Your task to perform on an android device: turn on airplane mode Image 0: 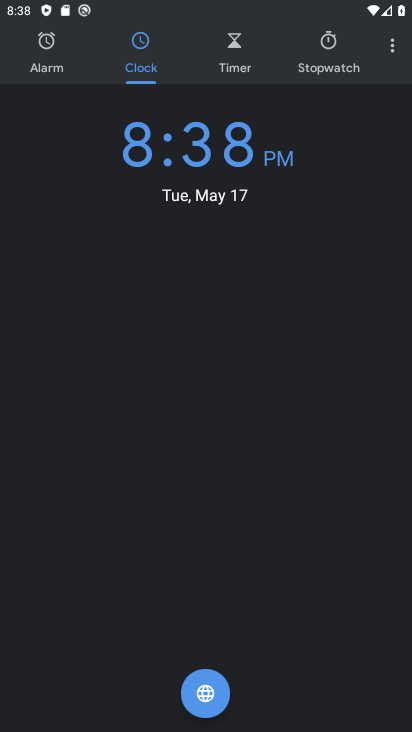
Step 0: press home button
Your task to perform on an android device: turn on airplane mode Image 1: 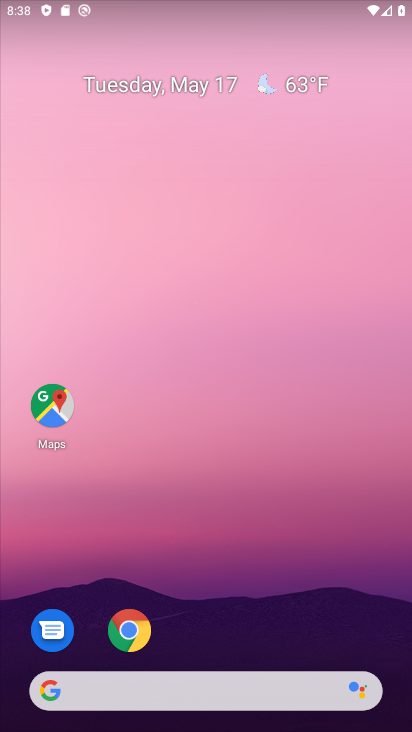
Step 1: drag from (223, 666) to (330, 197)
Your task to perform on an android device: turn on airplane mode Image 2: 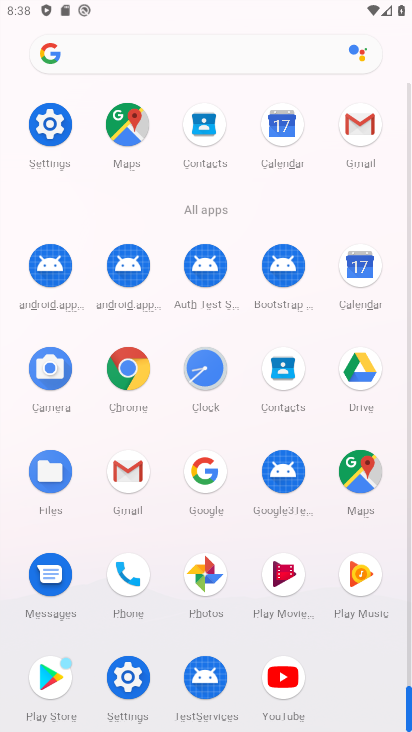
Step 2: click (130, 684)
Your task to perform on an android device: turn on airplane mode Image 3: 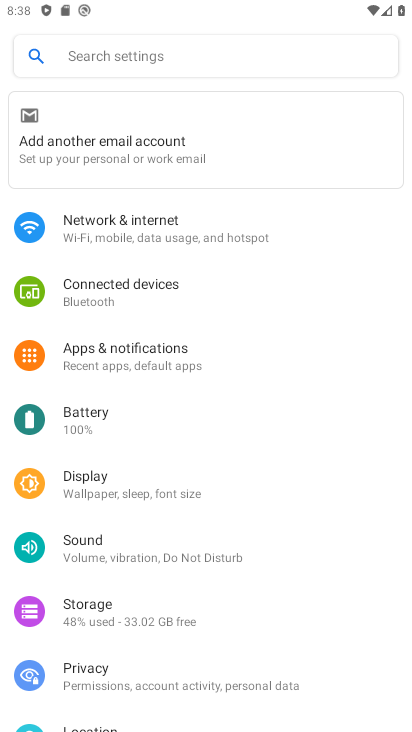
Step 3: click (227, 225)
Your task to perform on an android device: turn on airplane mode Image 4: 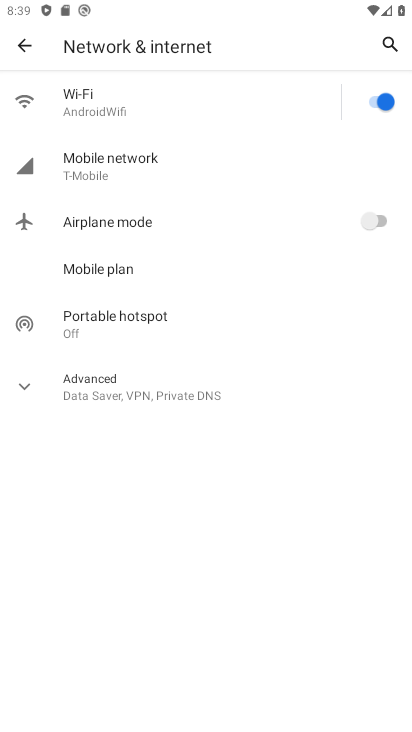
Step 4: click (390, 216)
Your task to perform on an android device: turn on airplane mode Image 5: 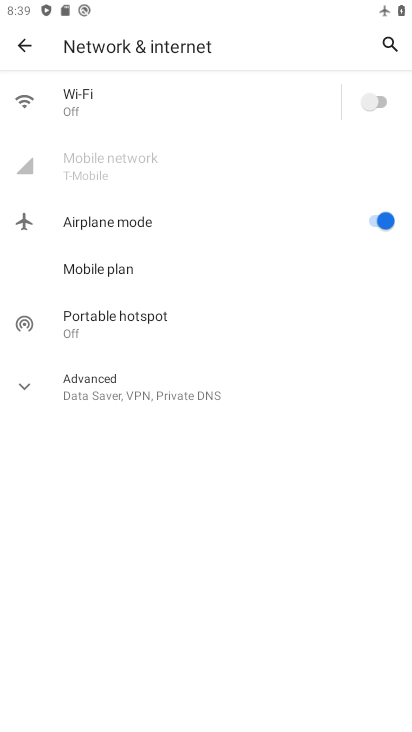
Step 5: task complete